Your task to perform on an android device: Open Google Chrome and click the shortcut for Amazon.com Image 0: 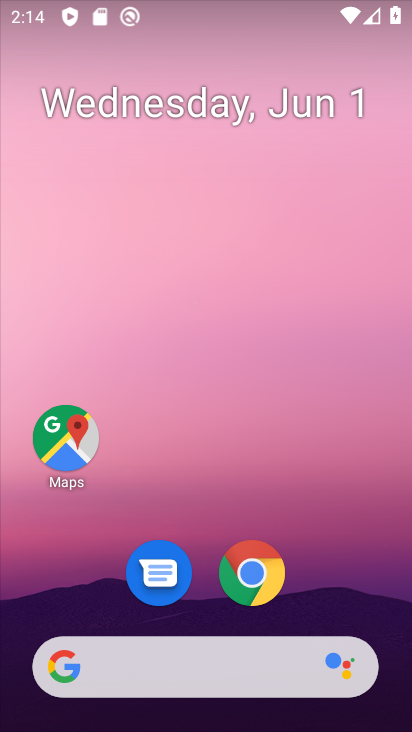
Step 0: click (250, 560)
Your task to perform on an android device: Open Google Chrome and click the shortcut for Amazon.com Image 1: 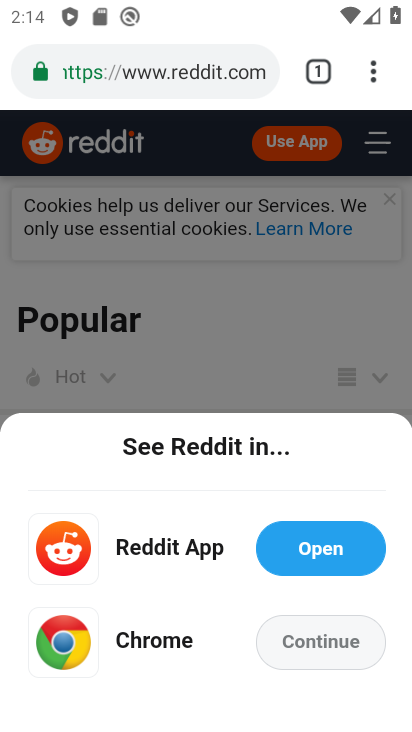
Step 1: click (302, 616)
Your task to perform on an android device: Open Google Chrome and click the shortcut for Amazon.com Image 2: 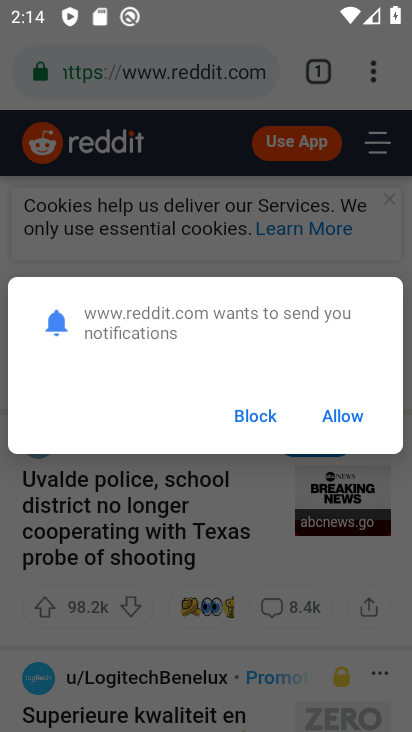
Step 2: click (333, 414)
Your task to perform on an android device: Open Google Chrome and click the shortcut for Amazon.com Image 3: 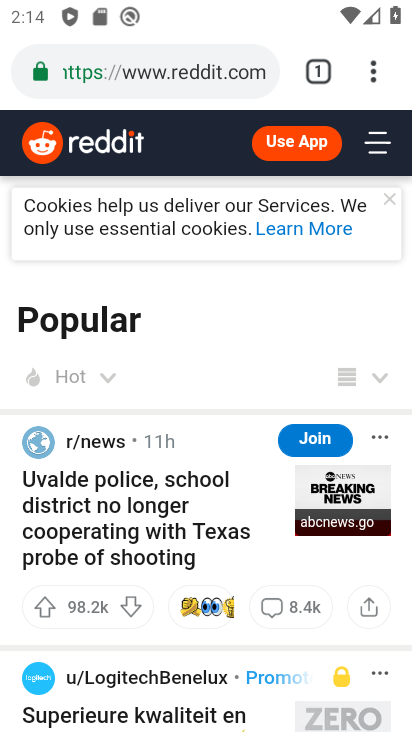
Step 3: click (309, 76)
Your task to perform on an android device: Open Google Chrome and click the shortcut for Amazon.com Image 4: 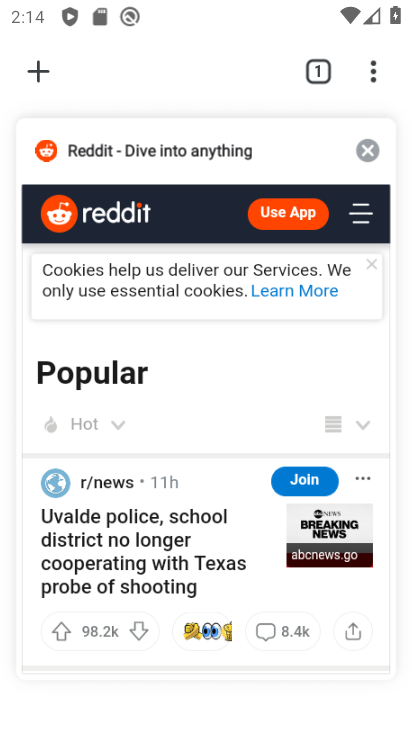
Step 4: click (34, 66)
Your task to perform on an android device: Open Google Chrome and click the shortcut for Amazon.com Image 5: 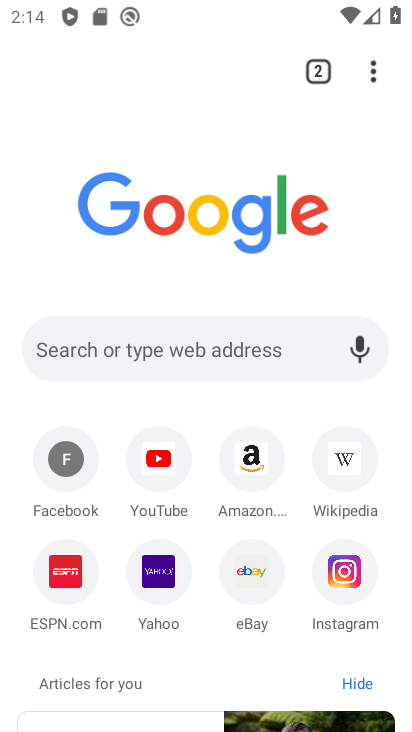
Step 5: click (244, 470)
Your task to perform on an android device: Open Google Chrome and click the shortcut for Amazon.com Image 6: 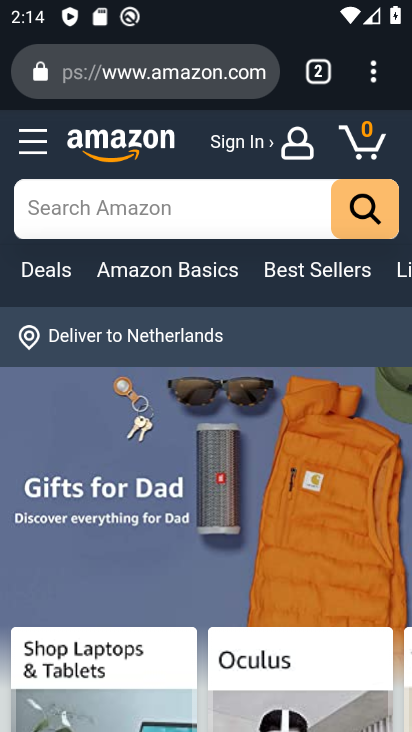
Step 6: task complete